Your task to perform on an android device: Open calendar and show me the third week of next month Image 0: 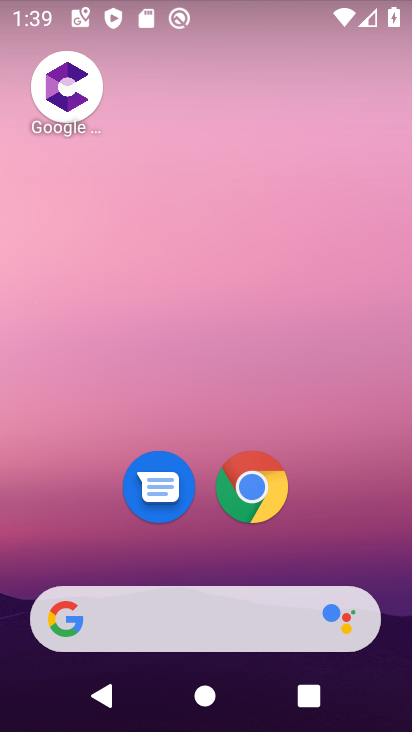
Step 0: drag from (364, 554) to (221, 37)
Your task to perform on an android device: Open calendar and show me the third week of next month Image 1: 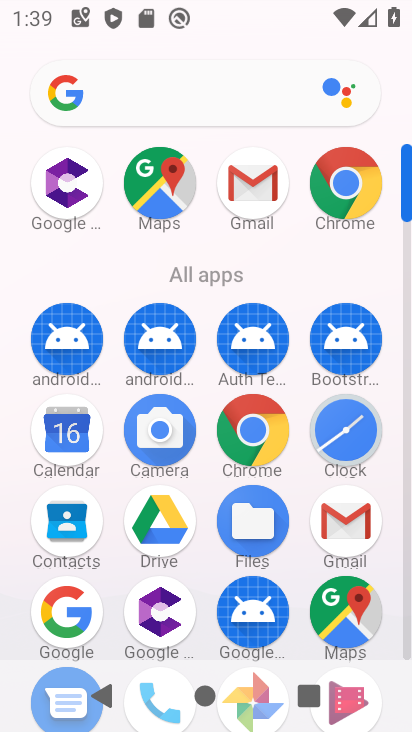
Step 1: drag from (3, 591) to (0, 214)
Your task to perform on an android device: Open calendar and show me the third week of next month Image 2: 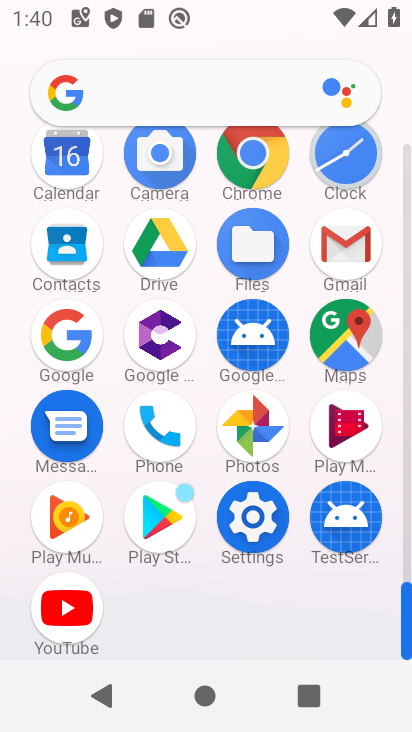
Step 2: click (72, 149)
Your task to perform on an android device: Open calendar and show me the third week of next month Image 3: 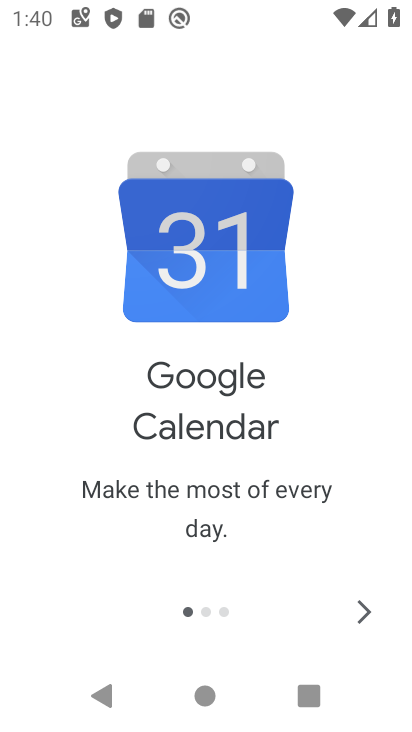
Step 3: click (361, 611)
Your task to perform on an android device: Open calendar and show me the third week of next month Image 4: 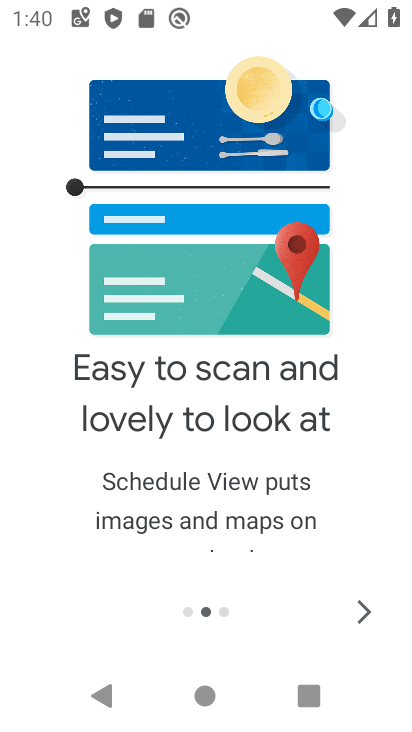
Step 4: click (363, 610)
Your task to perform on an android device: Open calendar and show me the third week of next month Image 5: 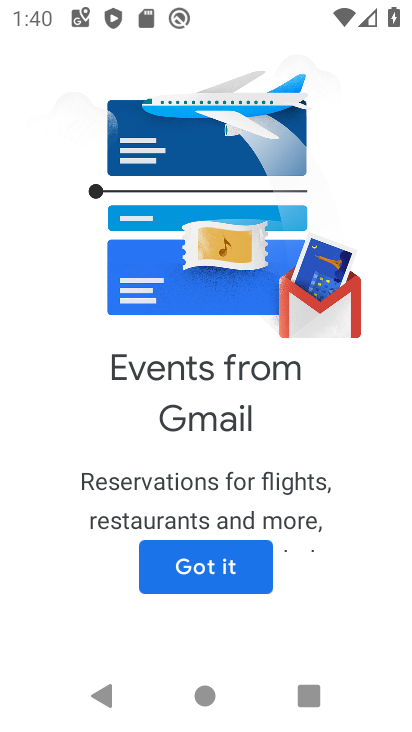
Step 5: click (234, 565)
Your task to perform on an android device: Open calendar and show me the third week of next month Image 6: 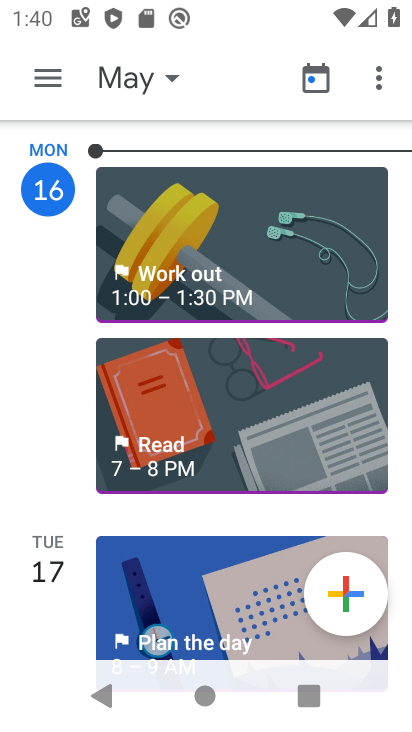
Step 6: drag from (185, 500) to (215, 138)
Your task to perform on an android device: Open calendar and show me the third week of next month Image 7: 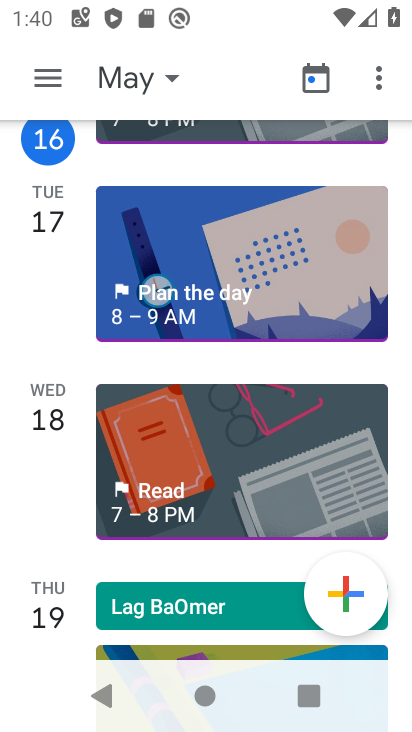
Step 7: drag from (218, 187) to (211, 545)
Your task to perform on an android device: Open calendar and show me the third week of next month Image 8: 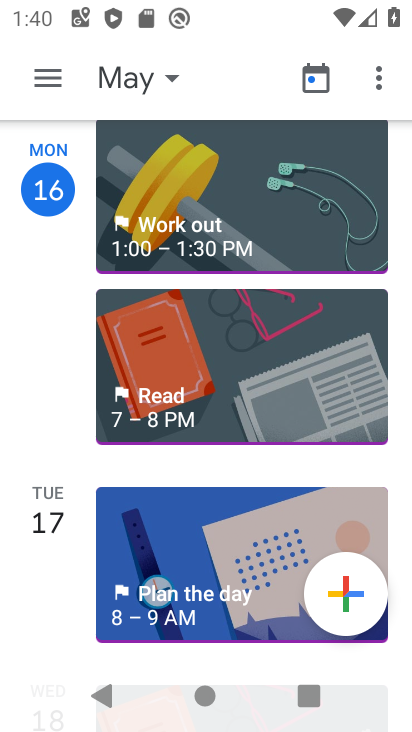
Step 8: click (155, 75)
Your task to perform on an android device: Open calendar and show me the third week of next month Image 9: 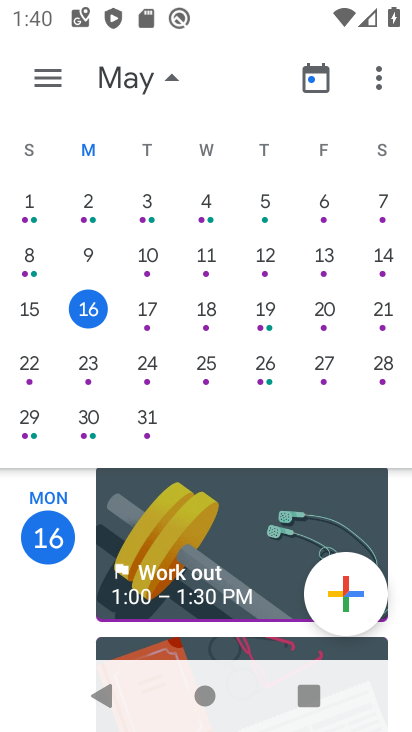
Step 9: drag from (322, 355) to (43, 308)
Your task to perform on an android device: Open calendar and show me the third week of next month Image 10: 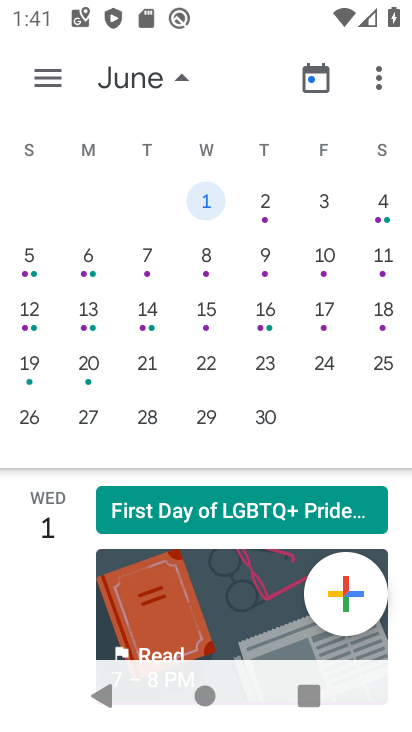
Step 10: click (24, 314)
Your task to perform on an android device: Open calendar and show me the third week of next month Image 11: 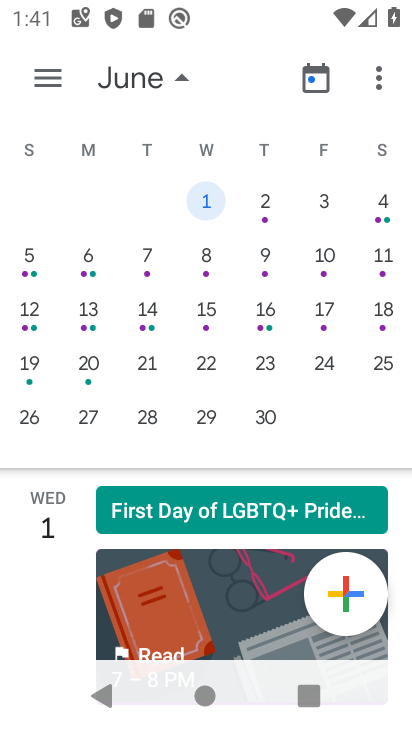
Step 11: click (29, 308)
Your task to perform on an android device: Open calendar and show me the third week of next month Image 12: 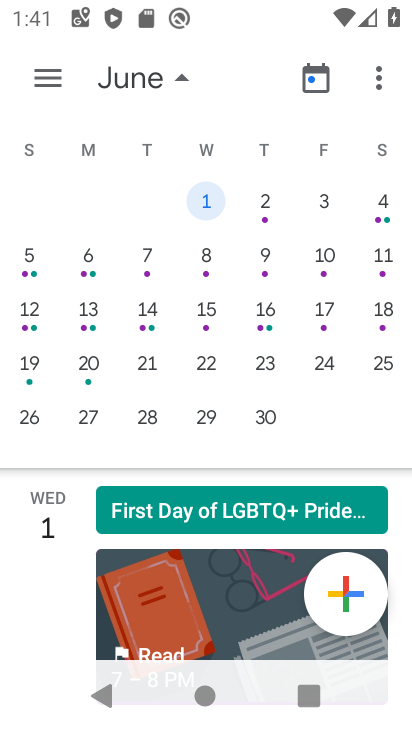
Step 12: click (32, 312)
Your task to perform on an android device: Open calendar and show me the third week of next month Image 13: 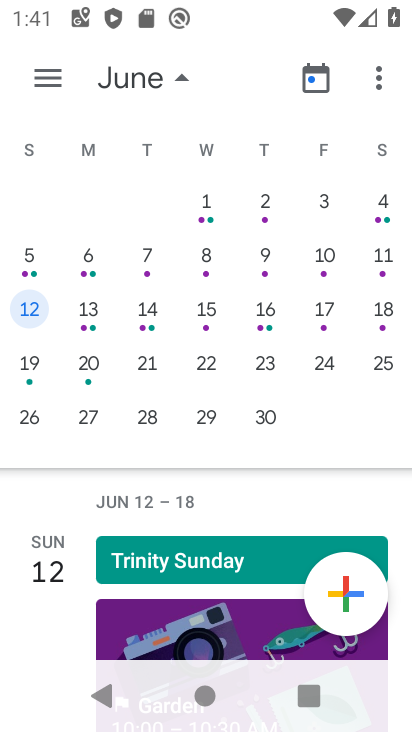
Step 13: click (43, 84)
Your task to perform on an android device: Open calendar and show me the third week of next month Image 14: 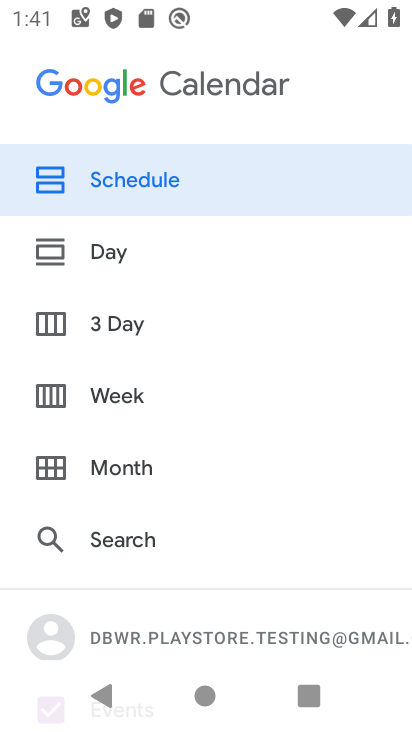
Step 14: click (118, 403)
Your task to perform on an android device: Open calendar and show me the third week of next month Image 15: 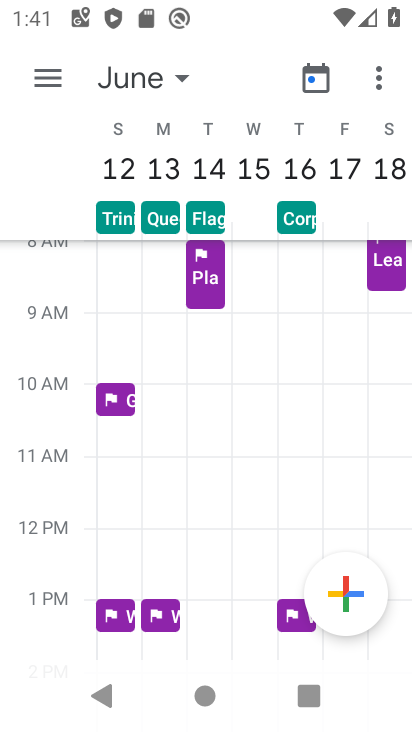
Step 15: task complete